Your task to perform on an android device: What is the recent news? Image 0: 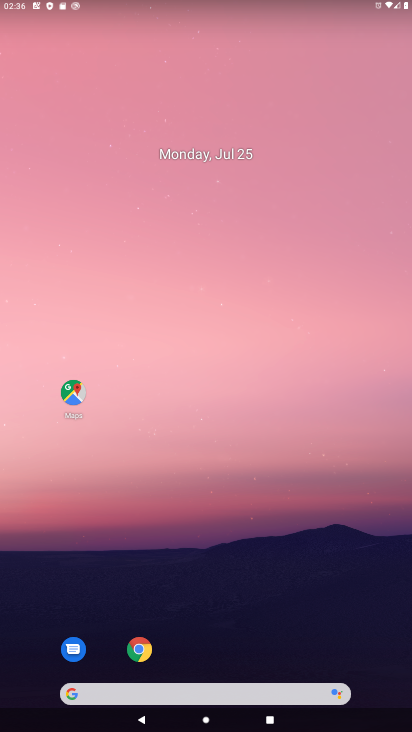
Step 0: drag from (7, 282) to (406, 326)
Your task to perform on an android device: What is the recent news? Image 1: 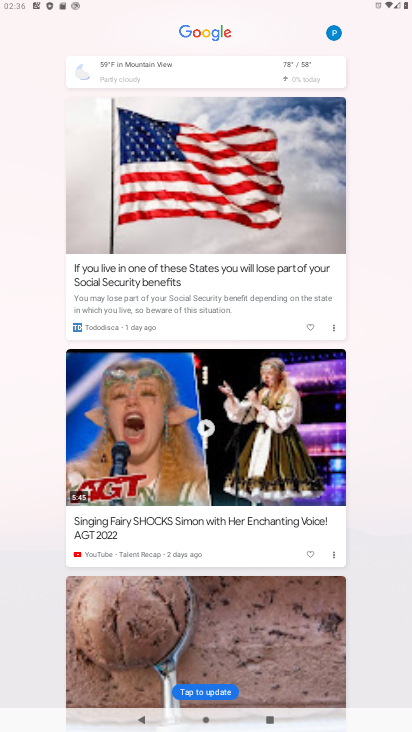
Step 1: task complete